Your task to perform on an android device: Open Chrome and go to the settings page Image 0: 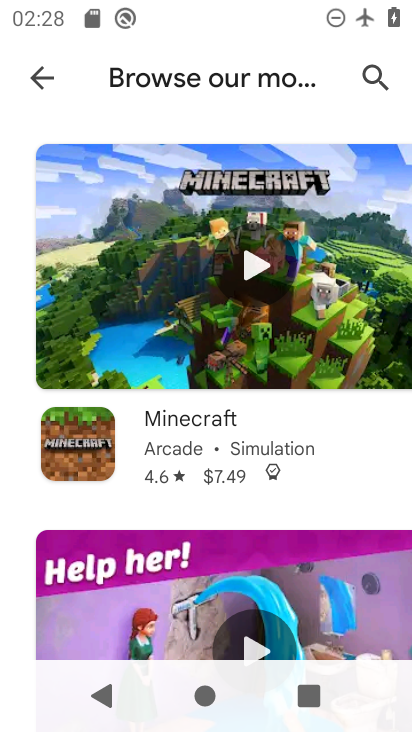
Step 0: press home button
Your task to perform on an android device: Open Chrome and go to the settings page Image 1: 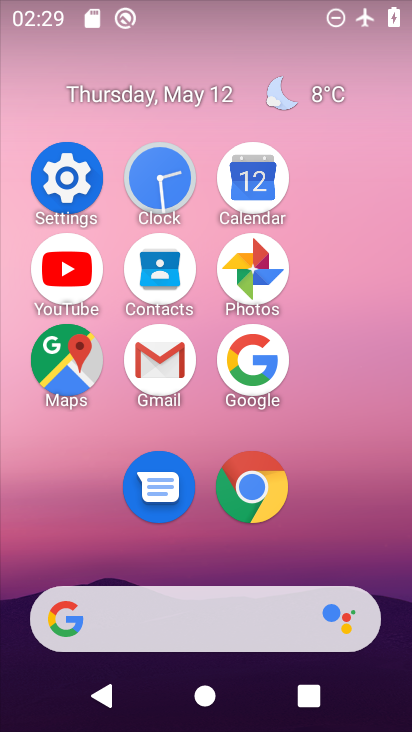
Step 1: click (240, 490)
Your task to perform on an android device: Open Chrome and go to the settings page Image 2: 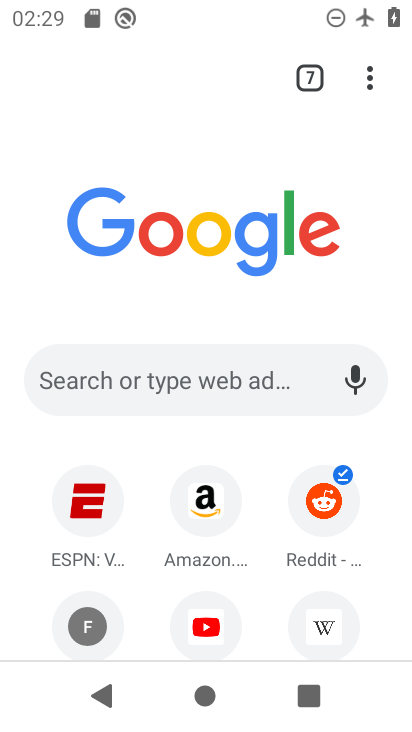
Step 2: click (375, 91)
Your task to perform on an android device: Open Chrome and go to the settings page Image 3: 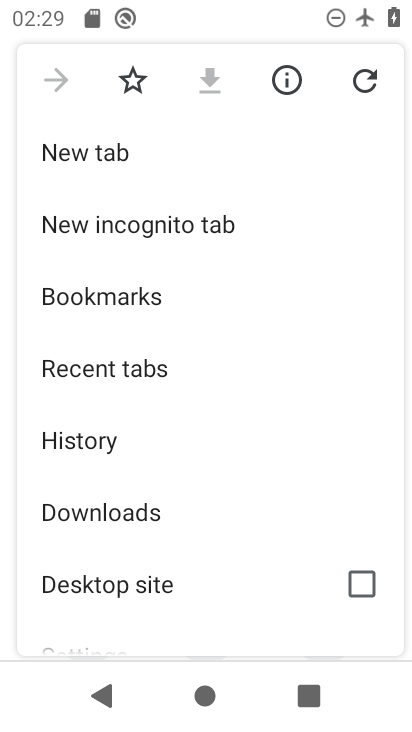
Step 3: drag from (128, 532) to (155, 157)
Your task to perform on an android device: Open Chrome and go to the settings page Image 4: 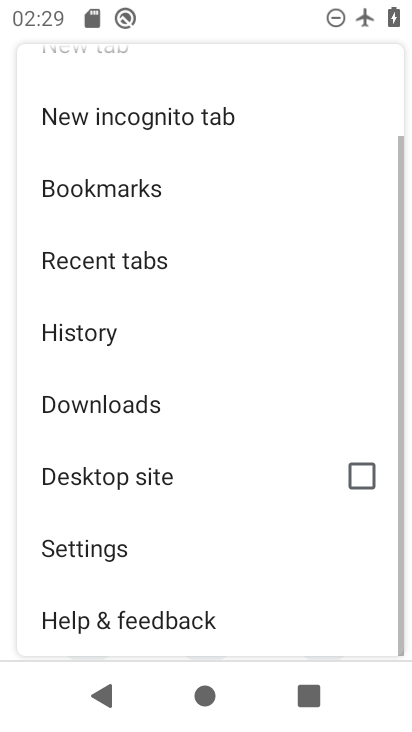
Step 4: click (163, 549)
Your task to perform on an android device: Open Chrome and go to the settings page Image 5: 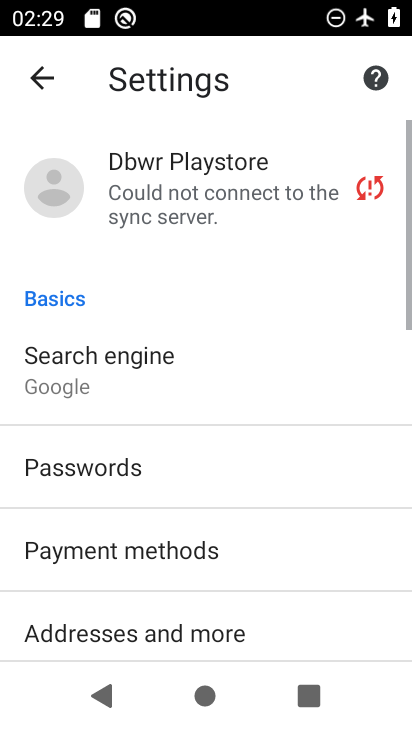
Step 5: task complete